Your task to perform on an android device: Open CNN.com Image 0: 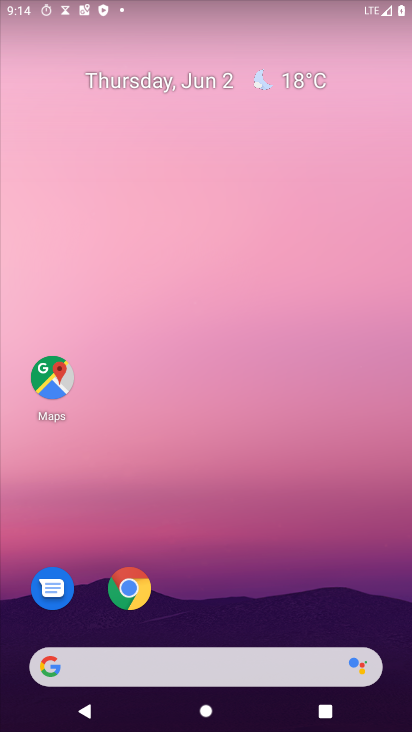
Step 0: click (136, 586)
Your task to perform on an android device: Open CNN.com Image 1: 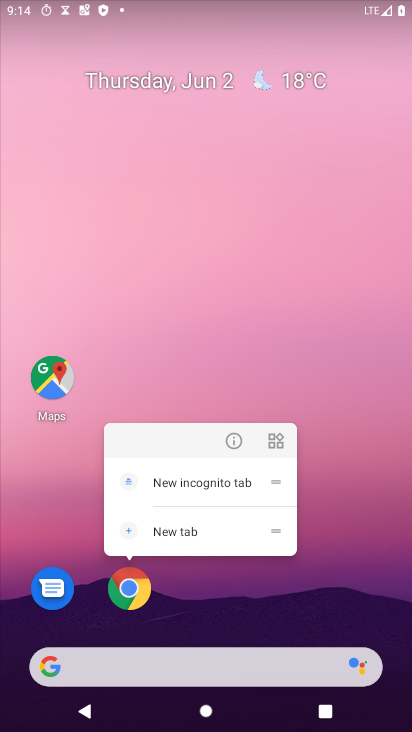
Step 1: click (120, 586)
Your task to perform on an android device: Open CNN.com Image 2: 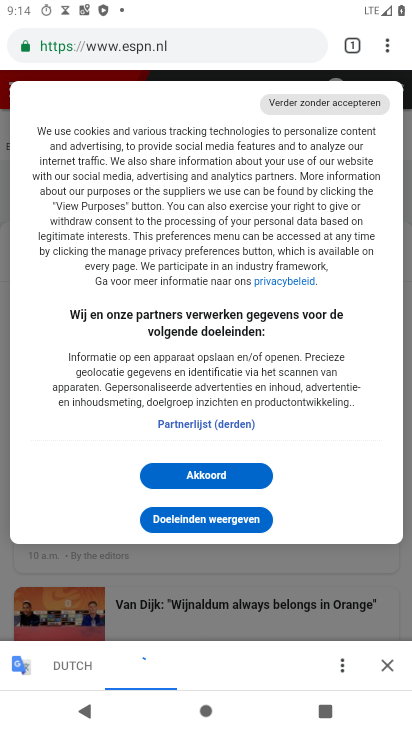
Step 2: click (347, 46)
Your task to perform on an android device: Open CNN.com Image 3: 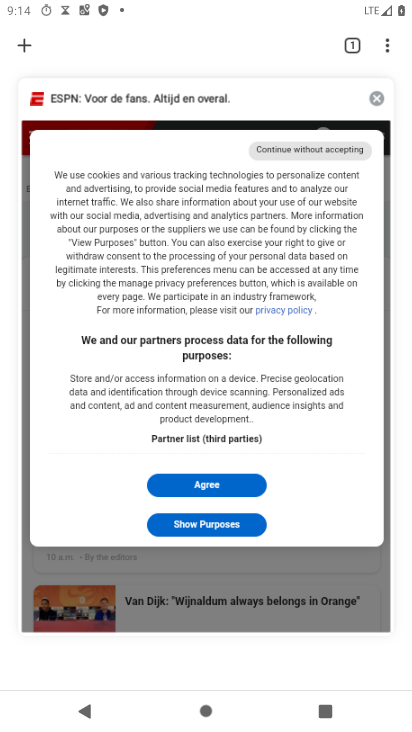
Step 3: click (28, 54)
Your task to perform on an android device: Open CNN.com Image 4: 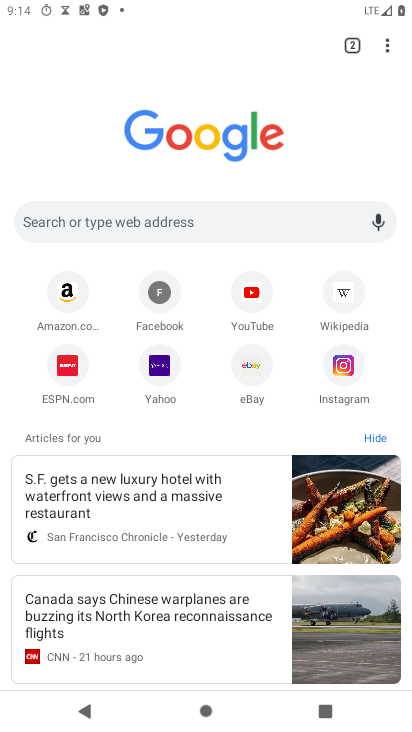
Step 4: click (166, 218)
Your task to perform on an android device: Open CNN.com Image 5: 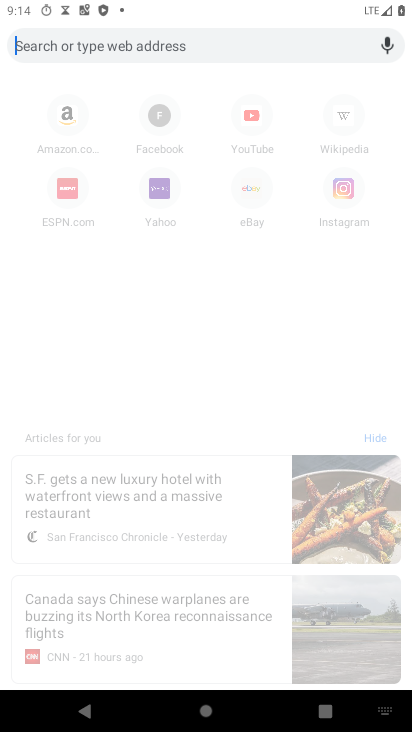
Step 5: type "cnn.com"
Your task to perform on an android device: Open CNN.com Image 6: 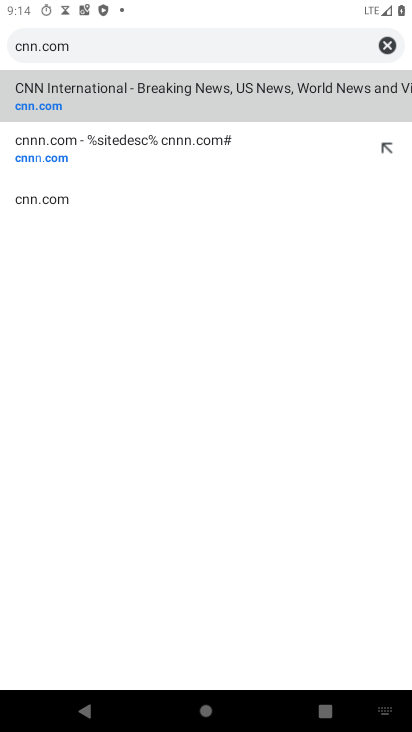
Step 6: click (108, 102)
Your task to perform on an android device: Open CNN.com Image 7: 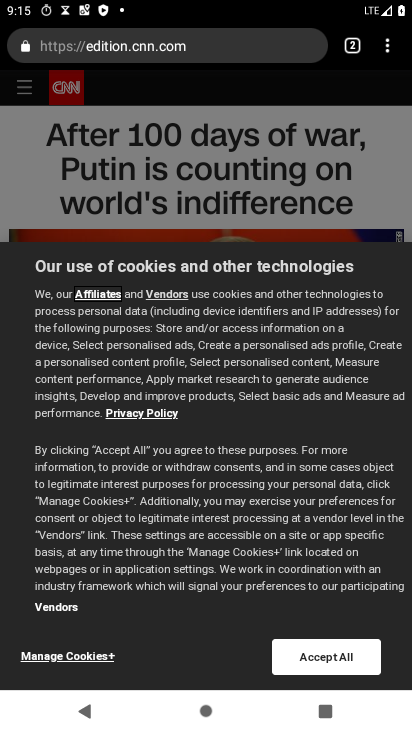
Step 7: task complete